Your task to perform on an android device: toggle improve location accuracy Image 0: 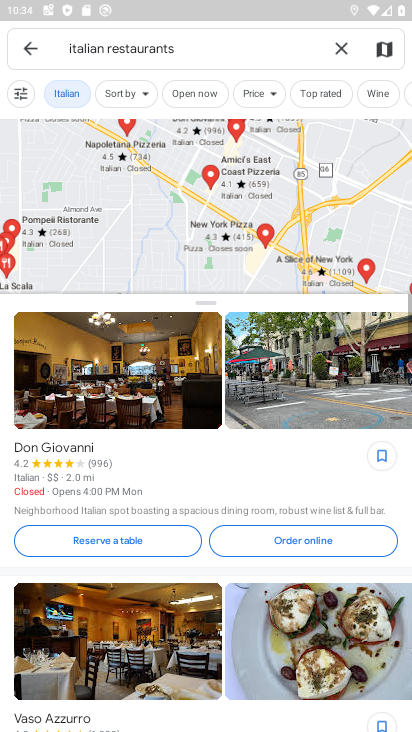
Step 0: press home button
Your task to perform on an android device: toggle improve location accuracy Image 1: 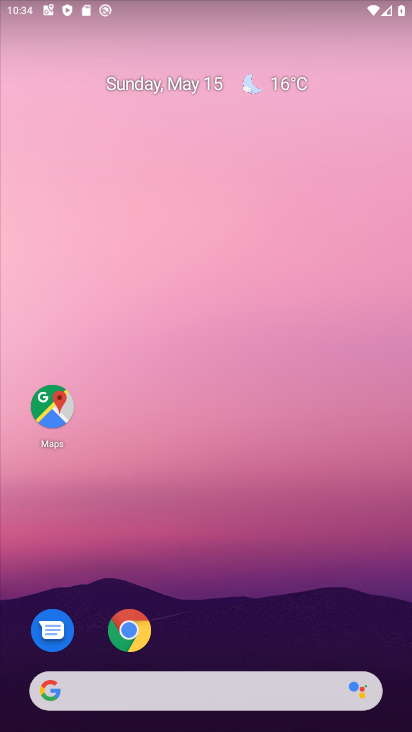
Step 1: drag from (210, 639) to (215, 131)
Your task to perform on an android device: toggle improve location accuracy Image 2: 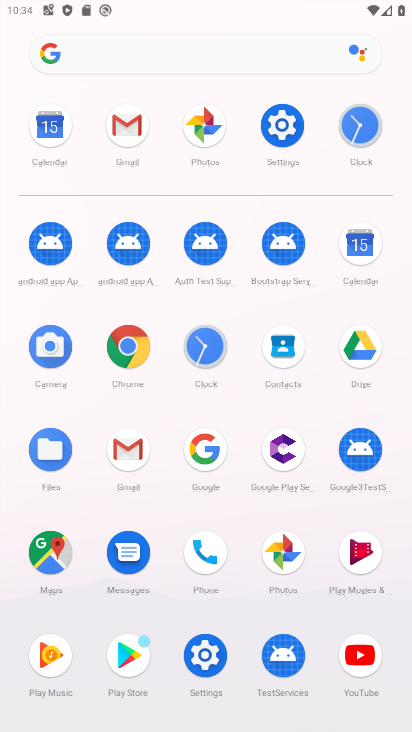
Step 2: click (270, 138)
Your task to perform on an android device: toggle improve location accuracy Image 3: 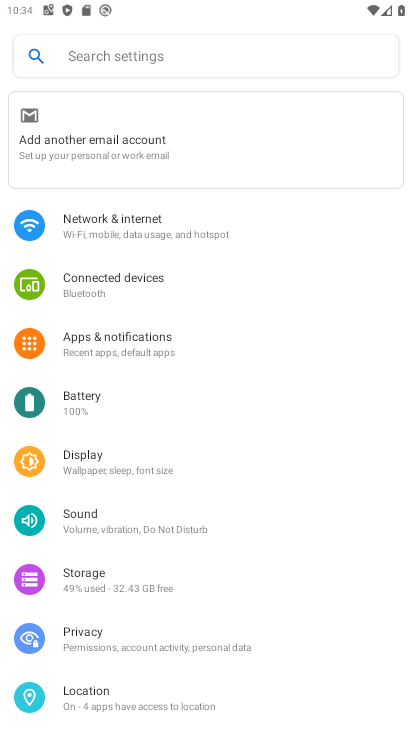
Step 3: drag from (166, 602) to (215, 390)
Your task to perform on an android device: toggle improve location accuracy Image 4: 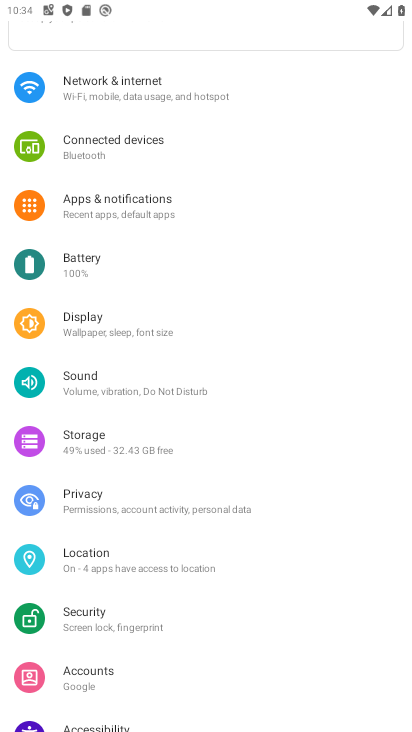
Step 4: click (137, 562)
Your task to perform on an android device: toggle improve location accuracy Image 5: 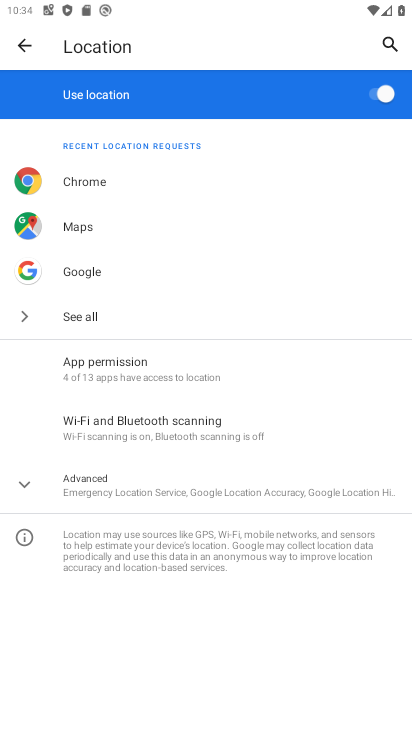
Step 5: click (138, 503)
Your task to perform on an android device: toggle improve location accuracy Image 6: 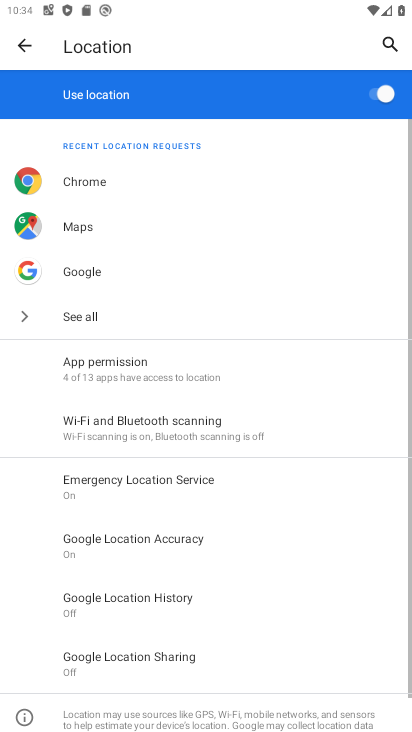
Step 6: drag from (214, 652) to (256, 461)
Your task to perform on an android device: toggle improve location accuracy Image 7: 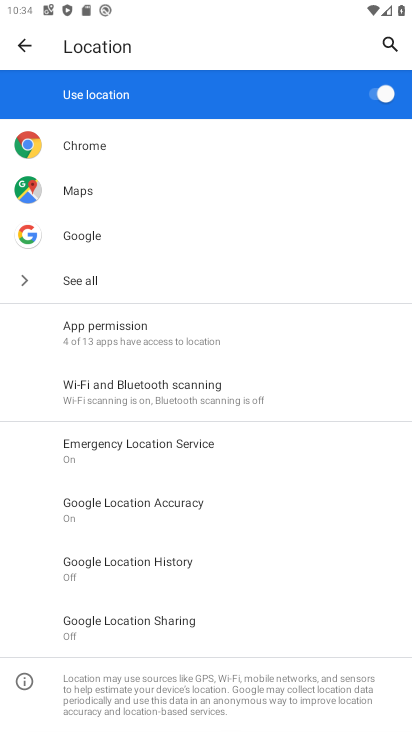
Step 7: click (130, 500)
Your task to perform on an android device: toggle improve location accuracy Image 8: 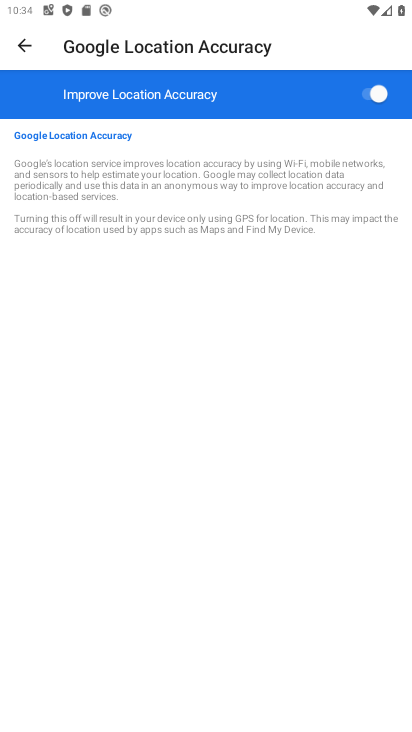
Step 8: click (367, 100)
Your task to perform on an android device: toggle improve location accuracy Image 9: 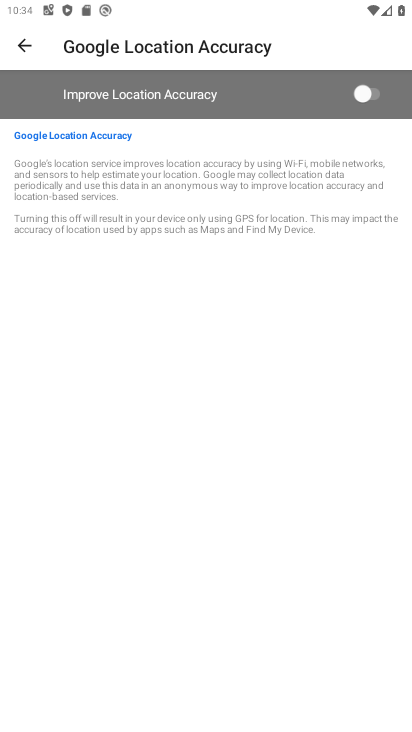
Step 9: task complete